Your task to perform on an android device: toggle javascript in the chrome app Image 0: 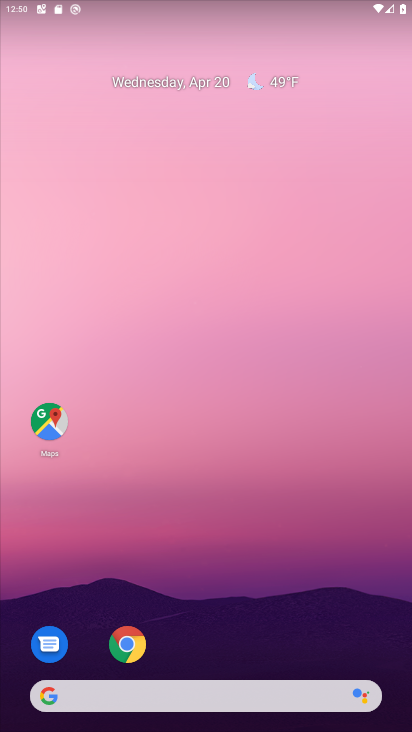
Step 0: click (125, 642)
Your task to perform on an android device: toggle javascript in the chrome app Image 1: 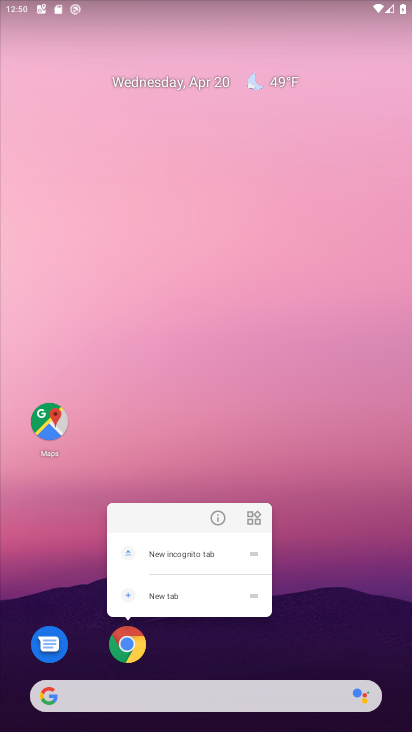
Step 1: click (128, 649)
Your task to perform on an android device: toggle javascript in the chrome app Image 2: 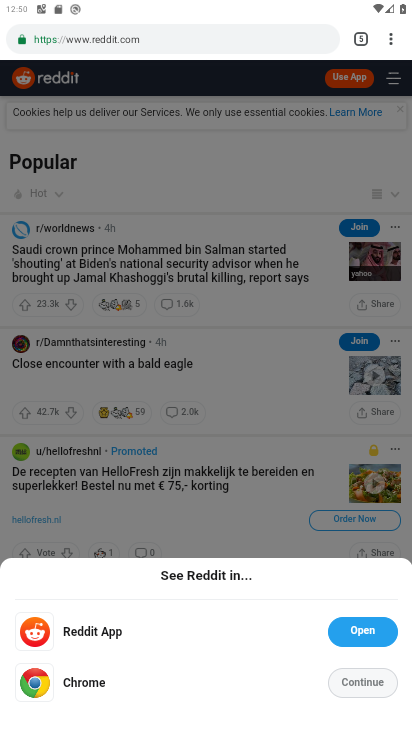
Step 2: click (386, 41)
Your task to perform on an android device: toggle javascript in the chrome app Image 3: 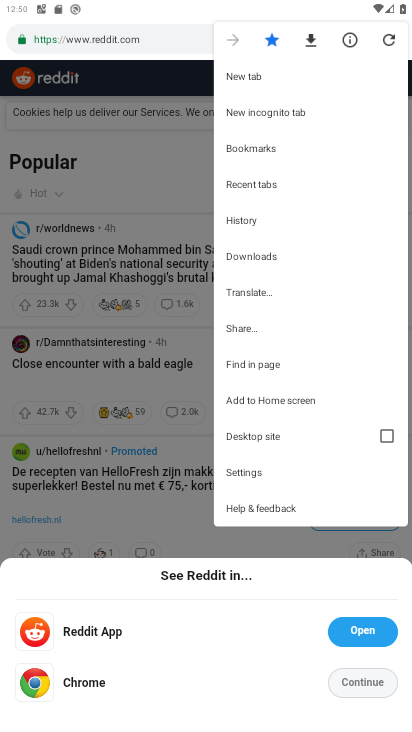
Step 3: click (257, 472)
Your task to perform on an android device: toggle javascript in the chrome app Image 4: 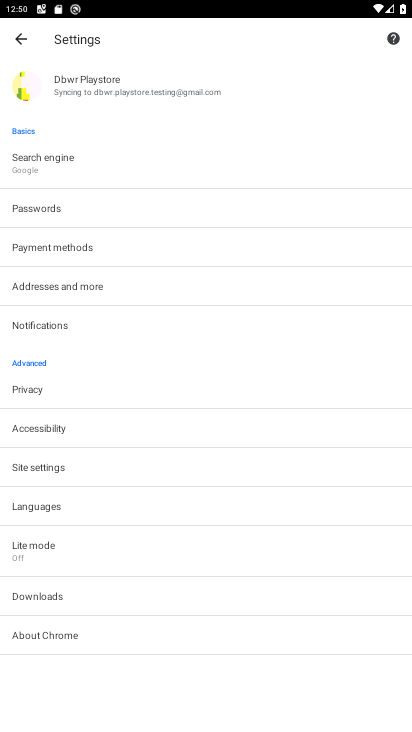
Step 4: click (53, 467)
Your task to perform on an android device: toggle javascript in the chrome app Image 5: 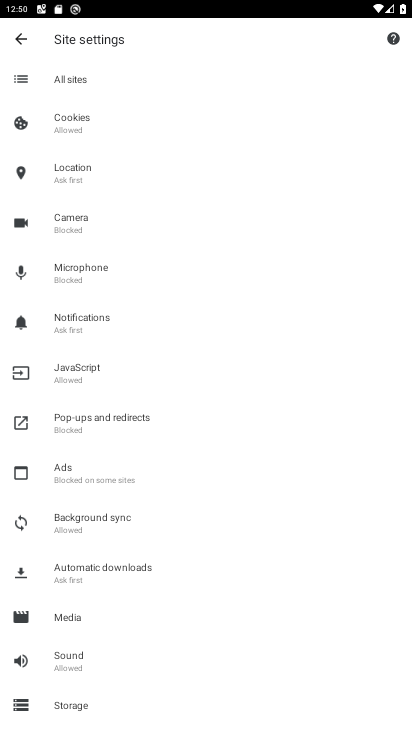
Step 5: click (95, 374)
Your task to perform on an android device: toggle javascript in the chrome app Image 6: 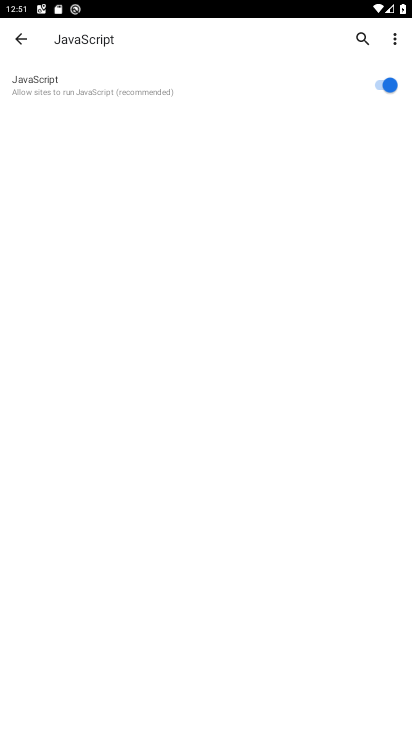
Step 6: click (369, 81)
Your task to perform on an android device: toggle javascript in the chrome app Image 7: 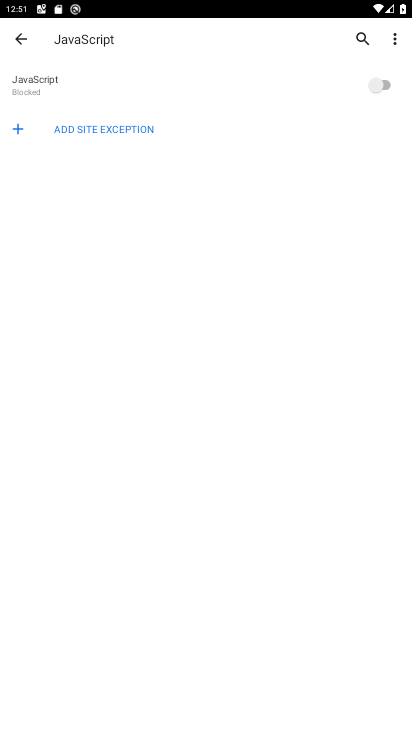
Step 7: task complete